Your task to perform on an android device: stop showing notifications on the lock screen Image 0: 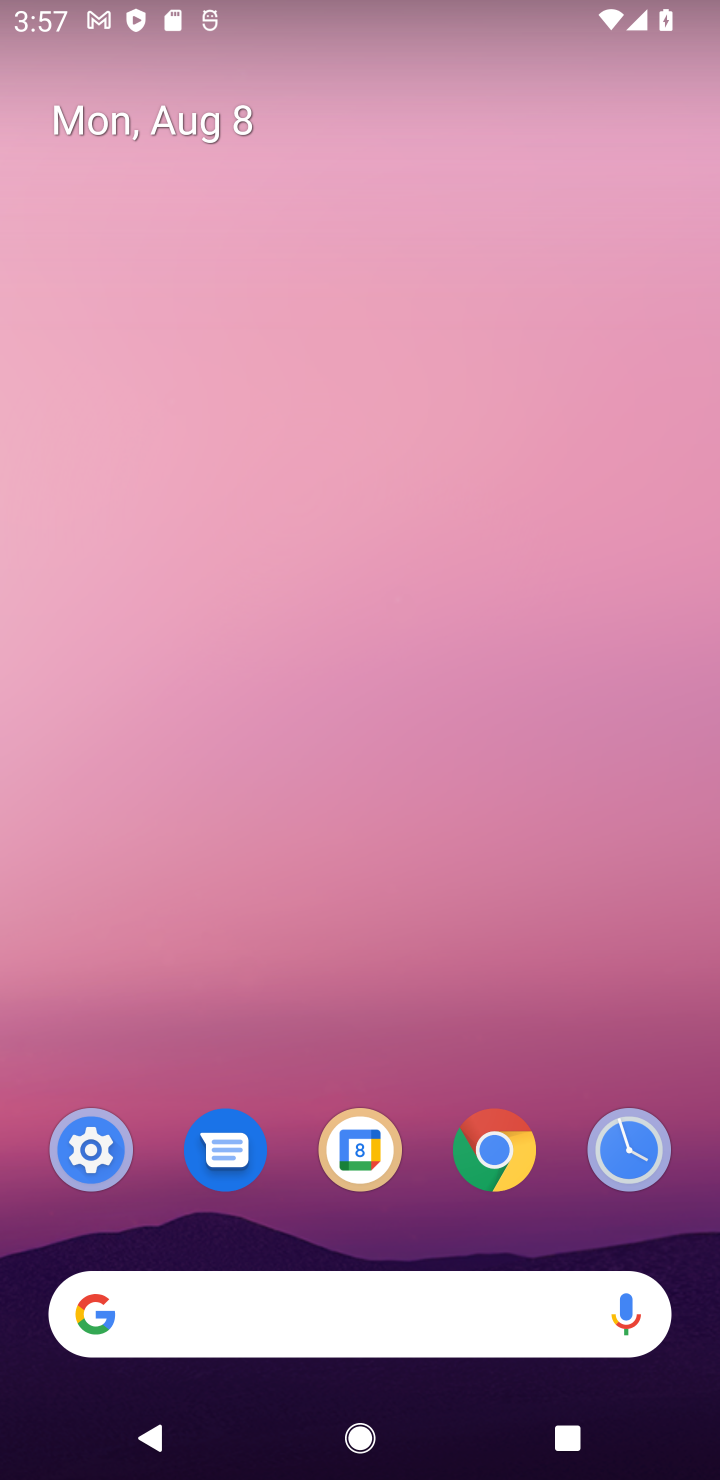
Step 0: click (96, 1164)
Your task to perform on an android device: stop showing notifications on the lock screen Image 1: 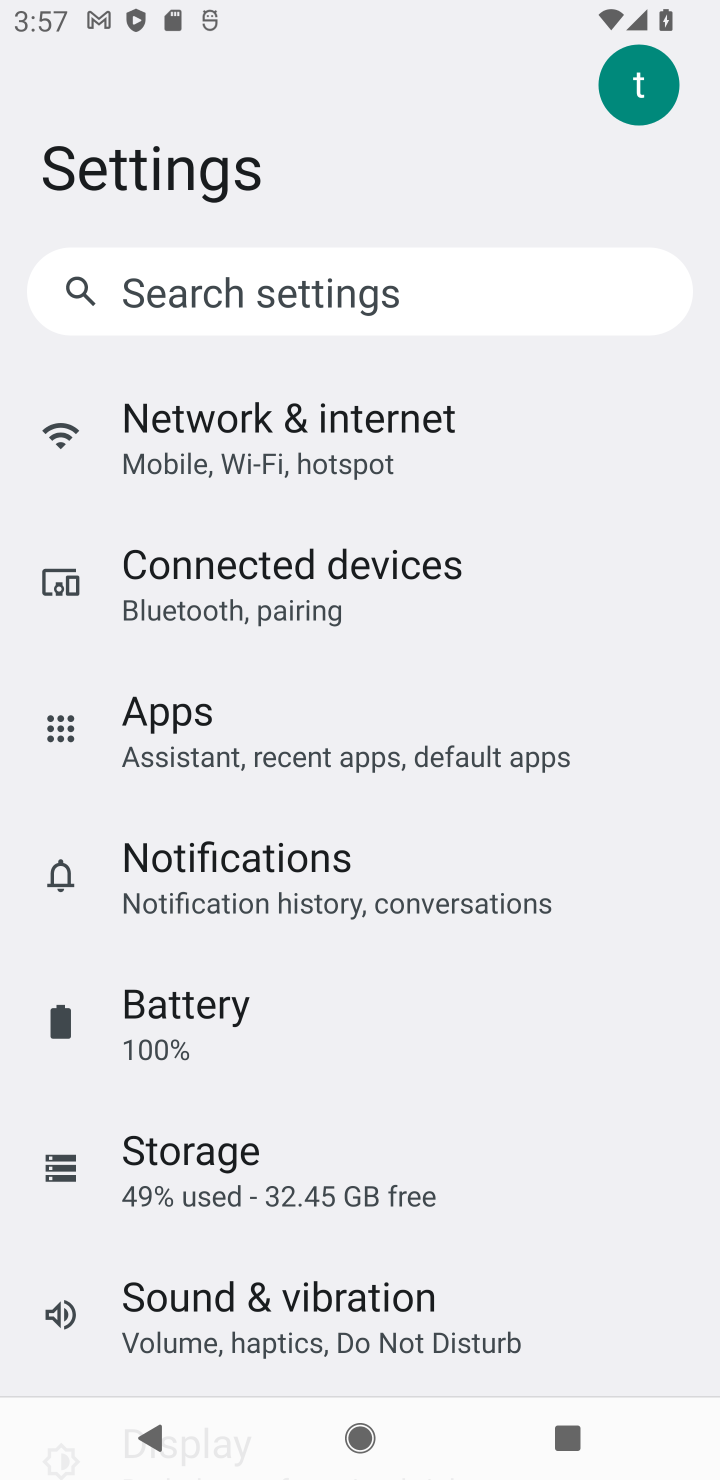
Step 1: task complete